Your task to perform on an android device: Open settings Image 0: 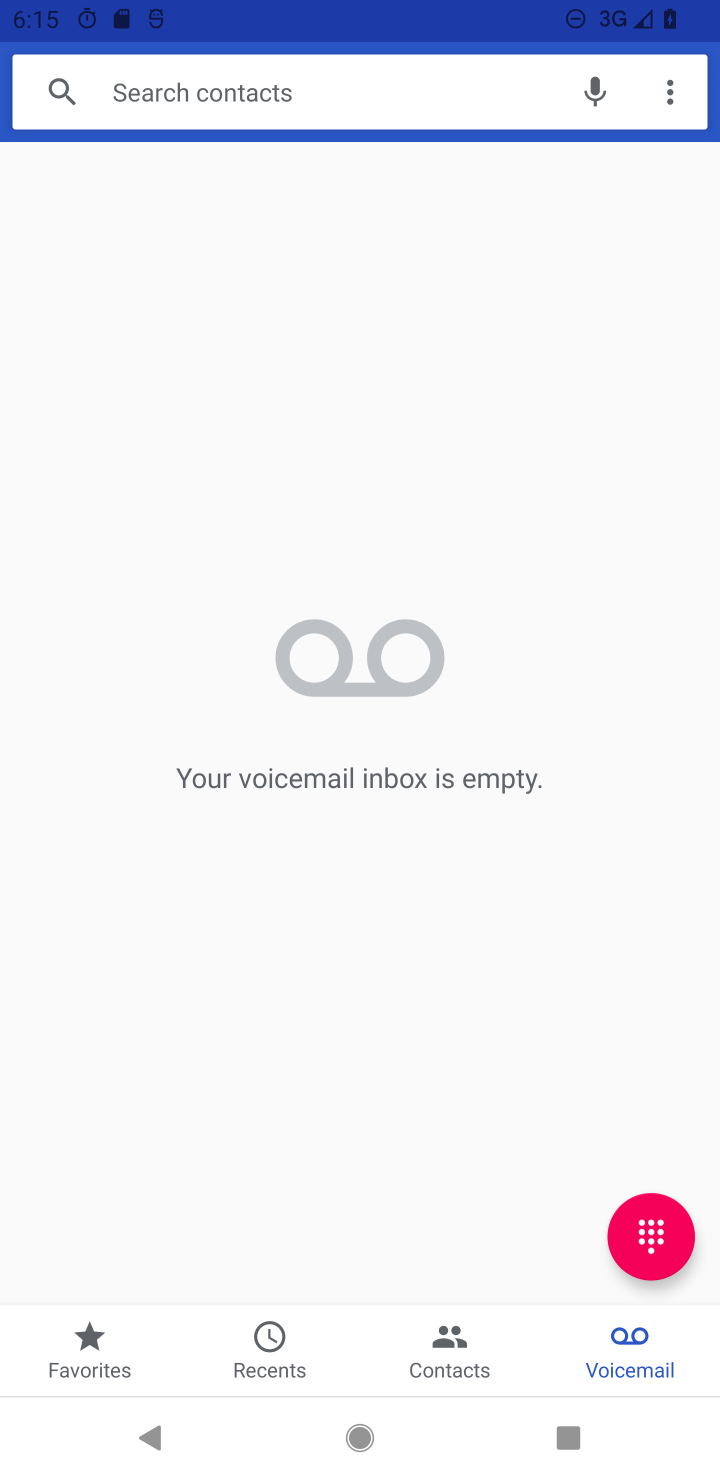
Step 0: click (192, 641)
Your task to perform on an android device: Open settings Image 1: 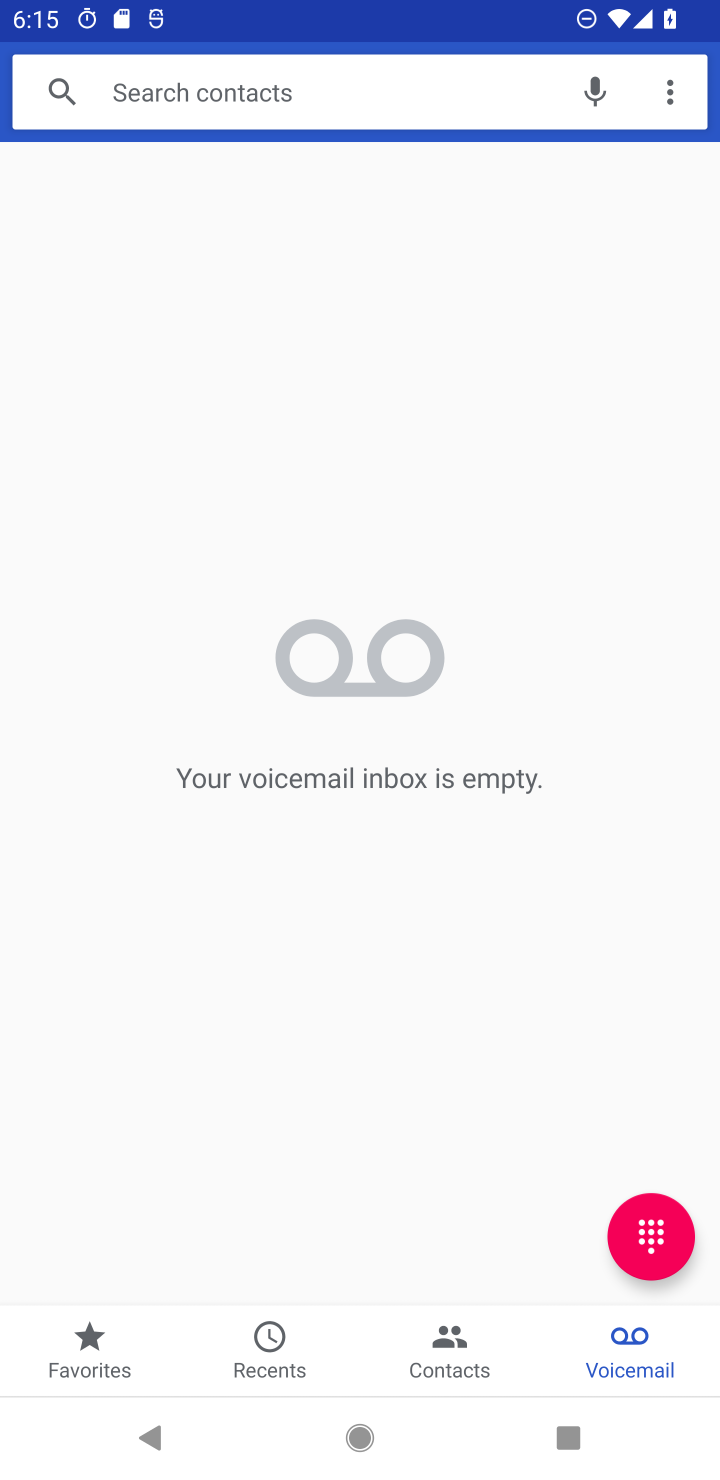
Step 1: press home button
Your task to perform on an android device: Open settings Image 2: 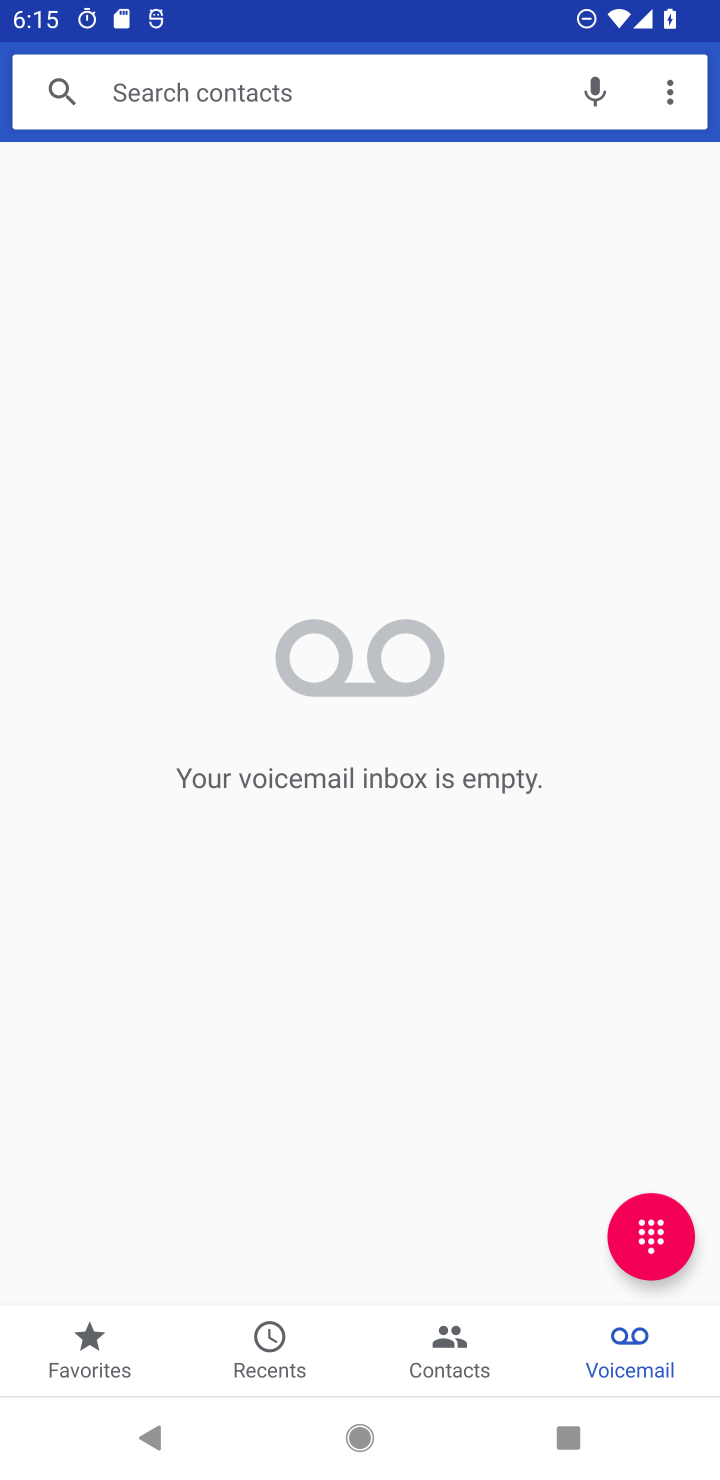
Step 2: click (369, 140)
Your task to perform on an android device: Open settings Image 3: 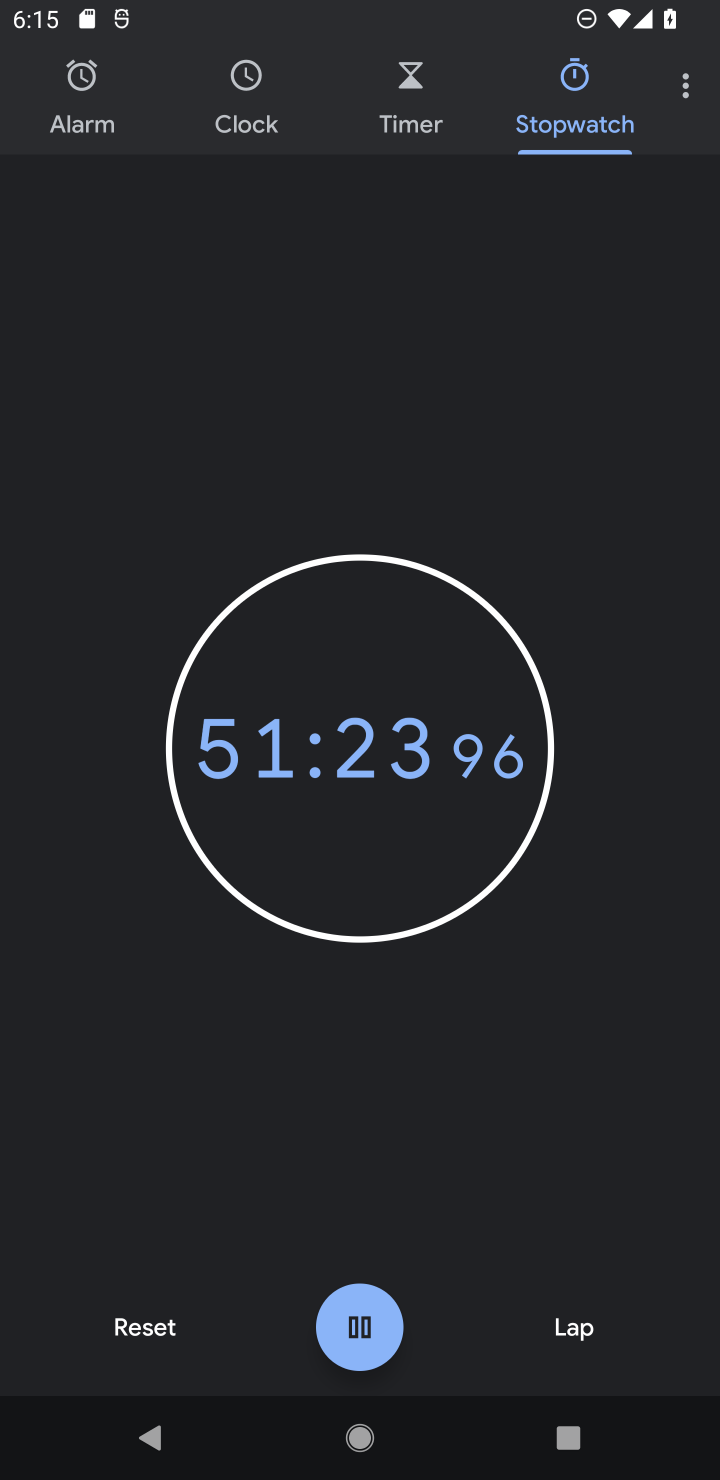
Step 3: press home button
Your task to perform on an android device: Open settings Image 4: 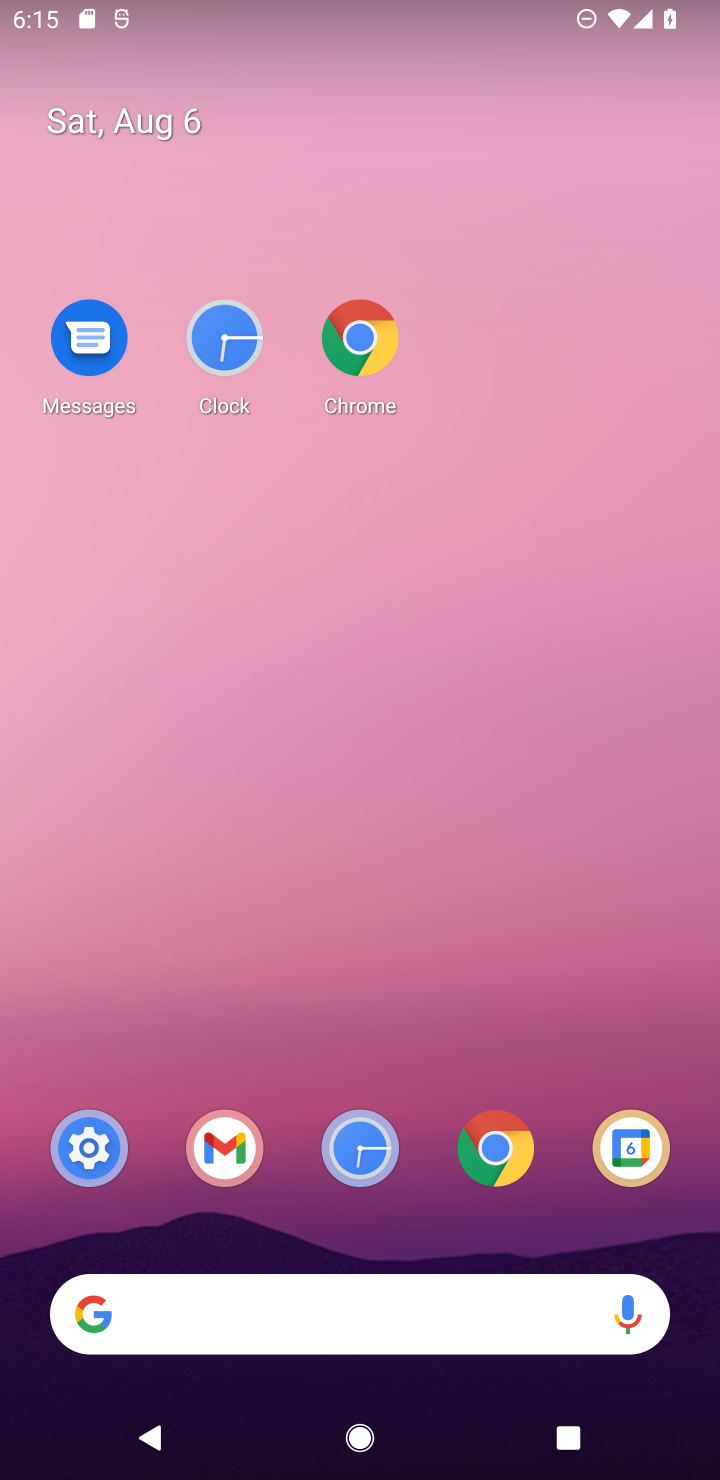
Step 4: drag from (444, 1066) to (547, 234)
Your task to perform on an android device: Open settings Image 5: 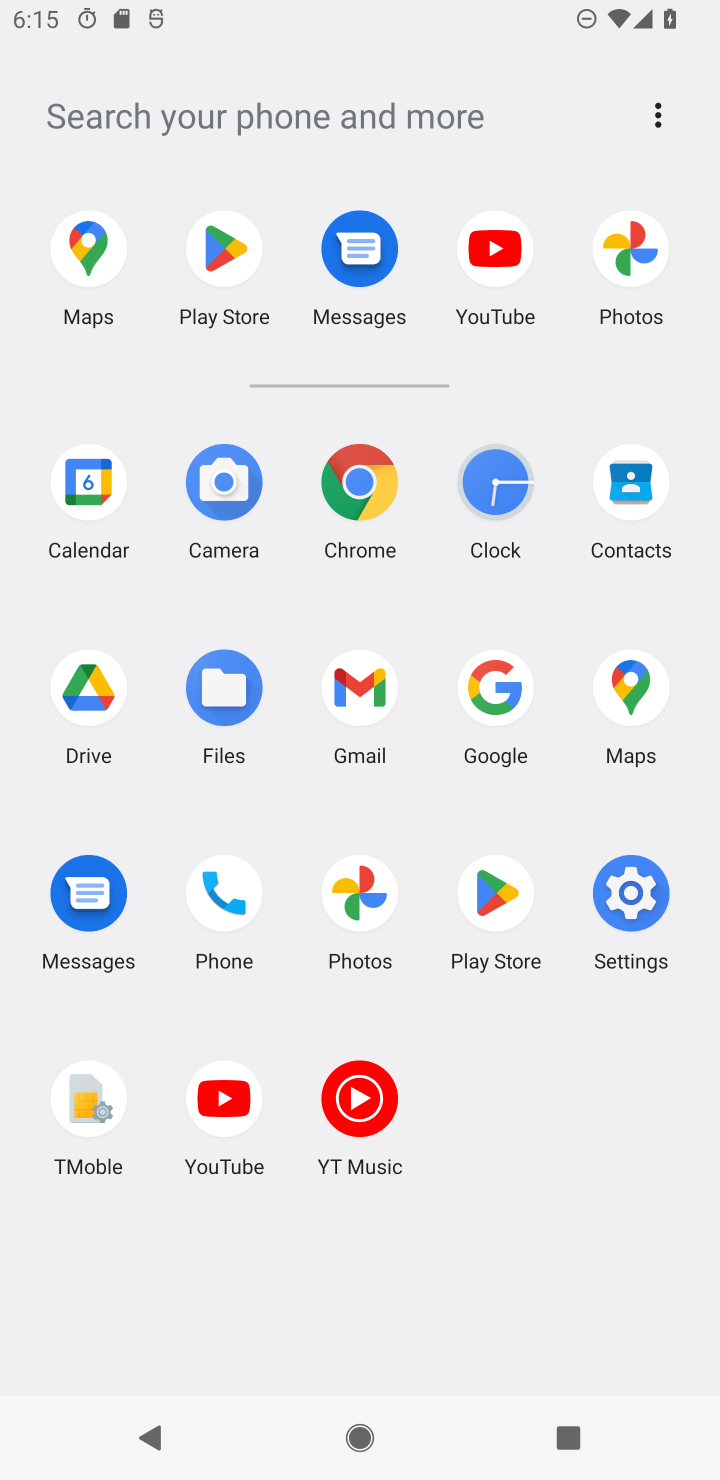
Step 5: click (614, 885)
Your task to perform on an android device: Open settings Image 6: 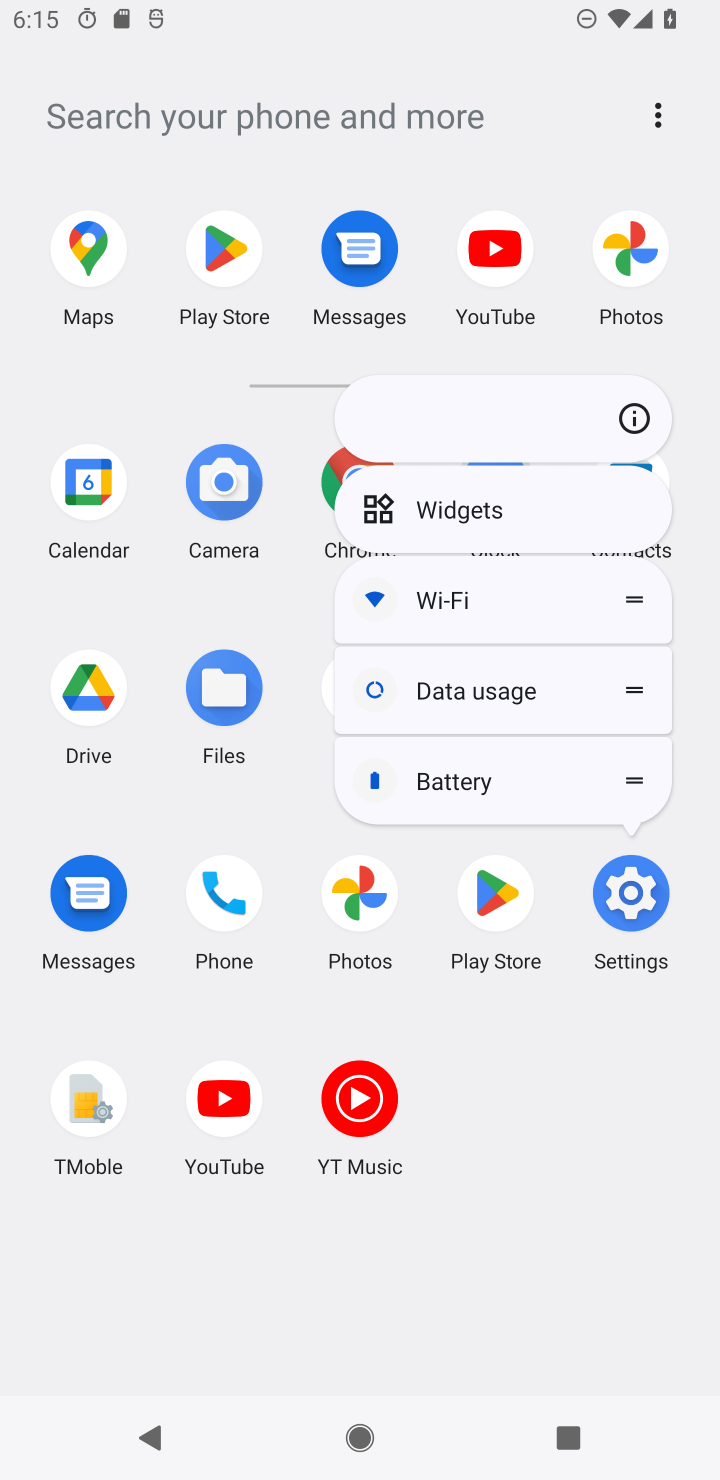
Step 6: click (622, 410)
Your task to perform on an android device: Open settings Image 7: 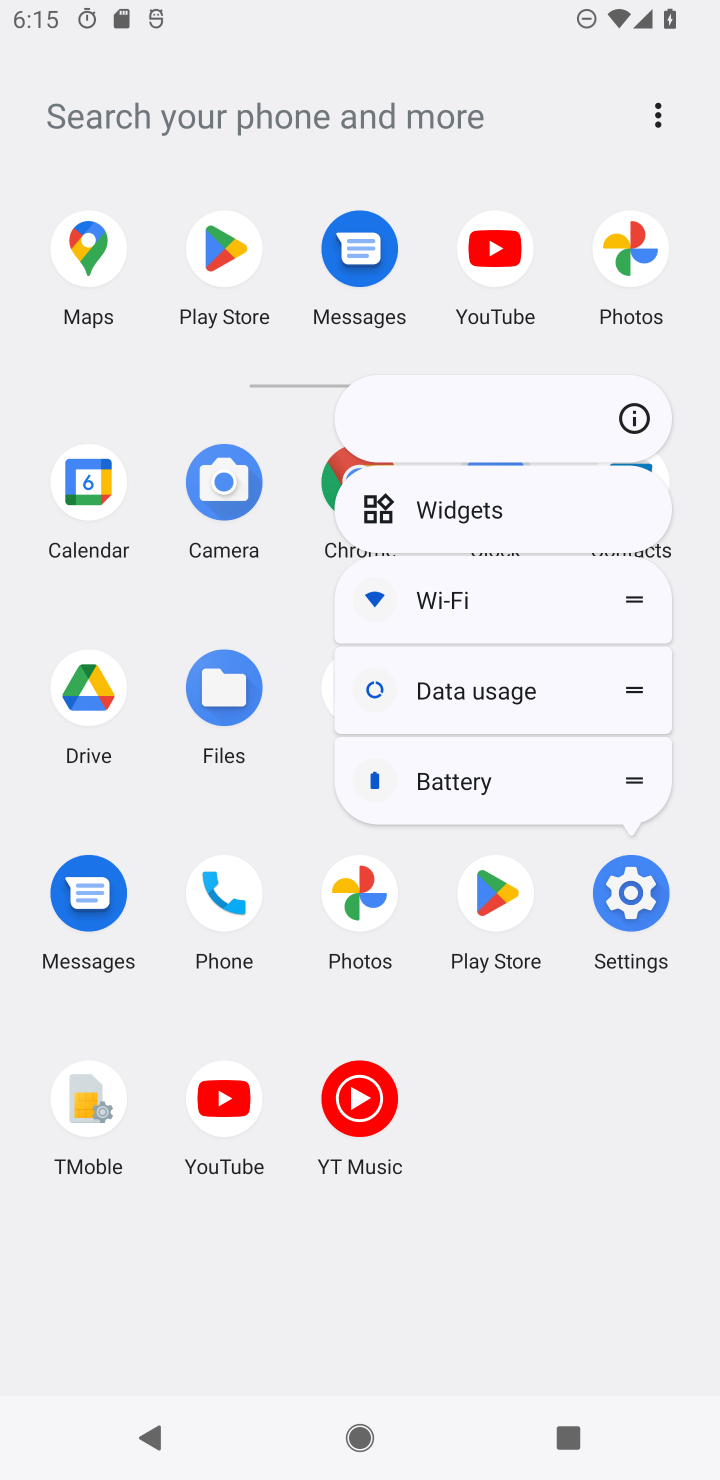
Step 7: click (607, 427)
Your task to perform on an android device: Open settings Image 8: 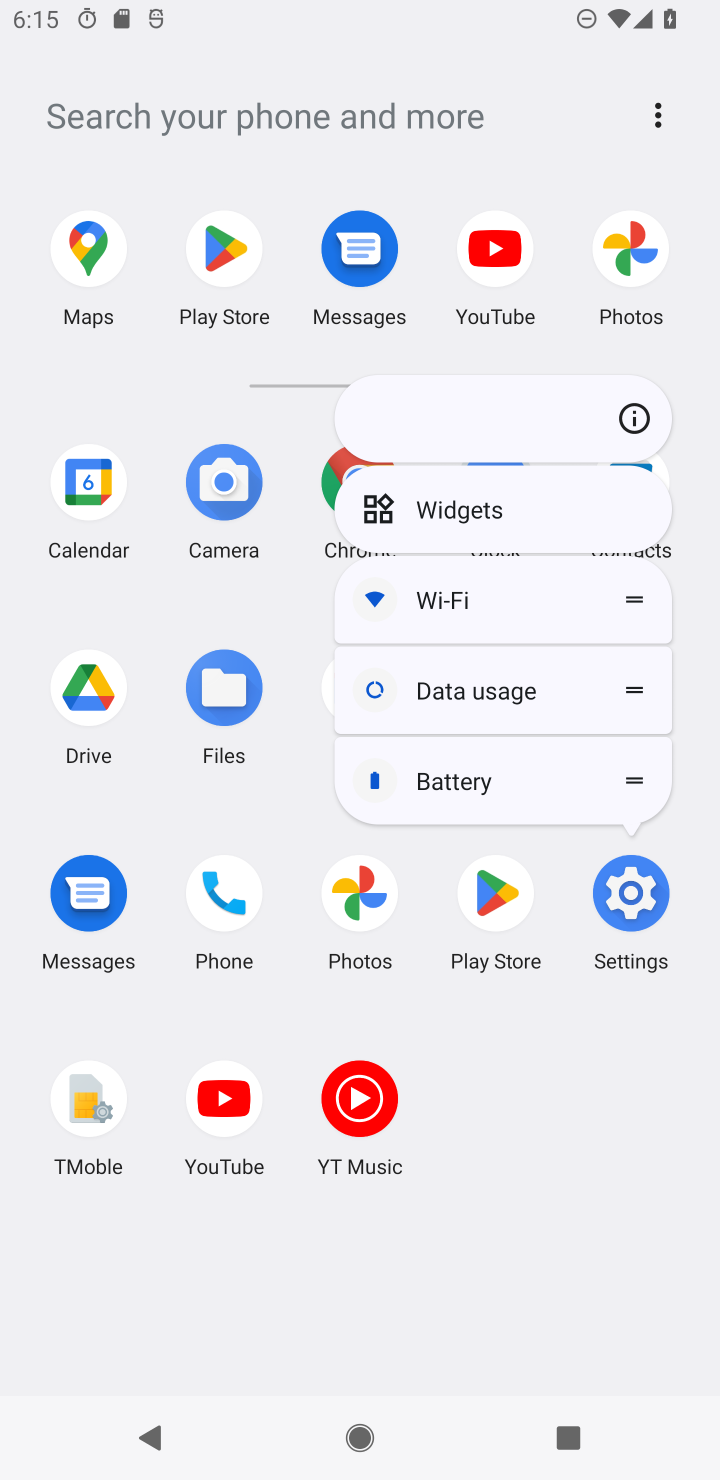
Step 8: click (628, 895)
Your task to perform on an android device: Open settings Image 9: 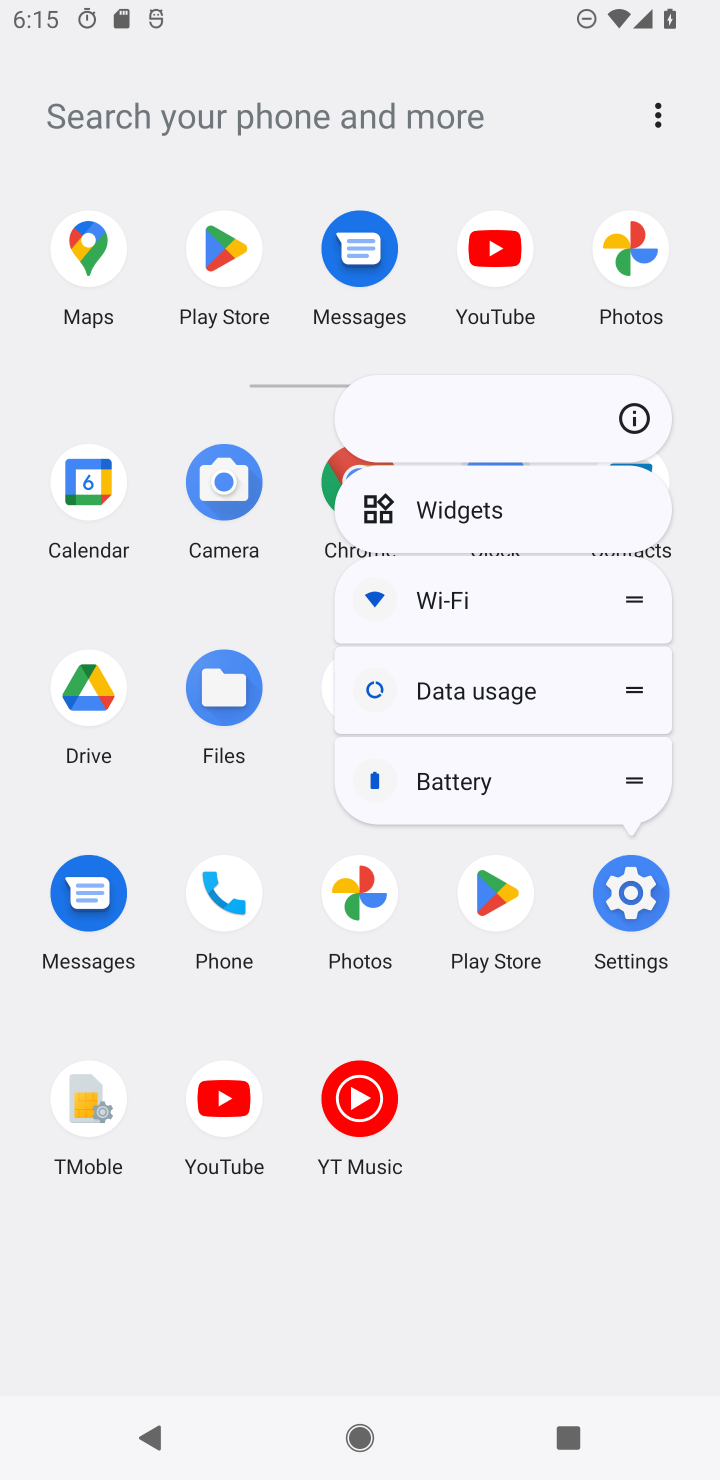
Step 9: click (626, 893)
Your task to perform on an android device: Open settings Image 10: 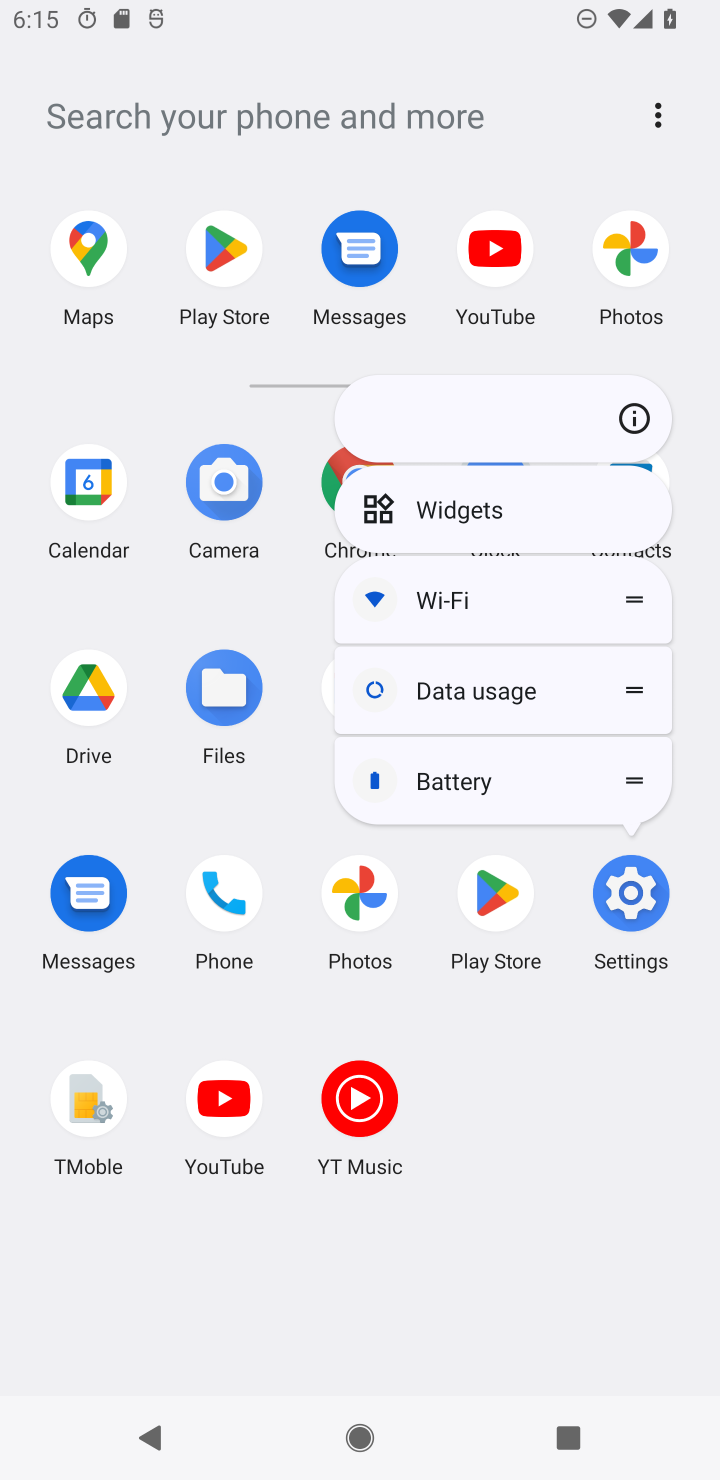
Step 10: click (626, 893)
Your task to perform on an android device: Open settings Image 11: 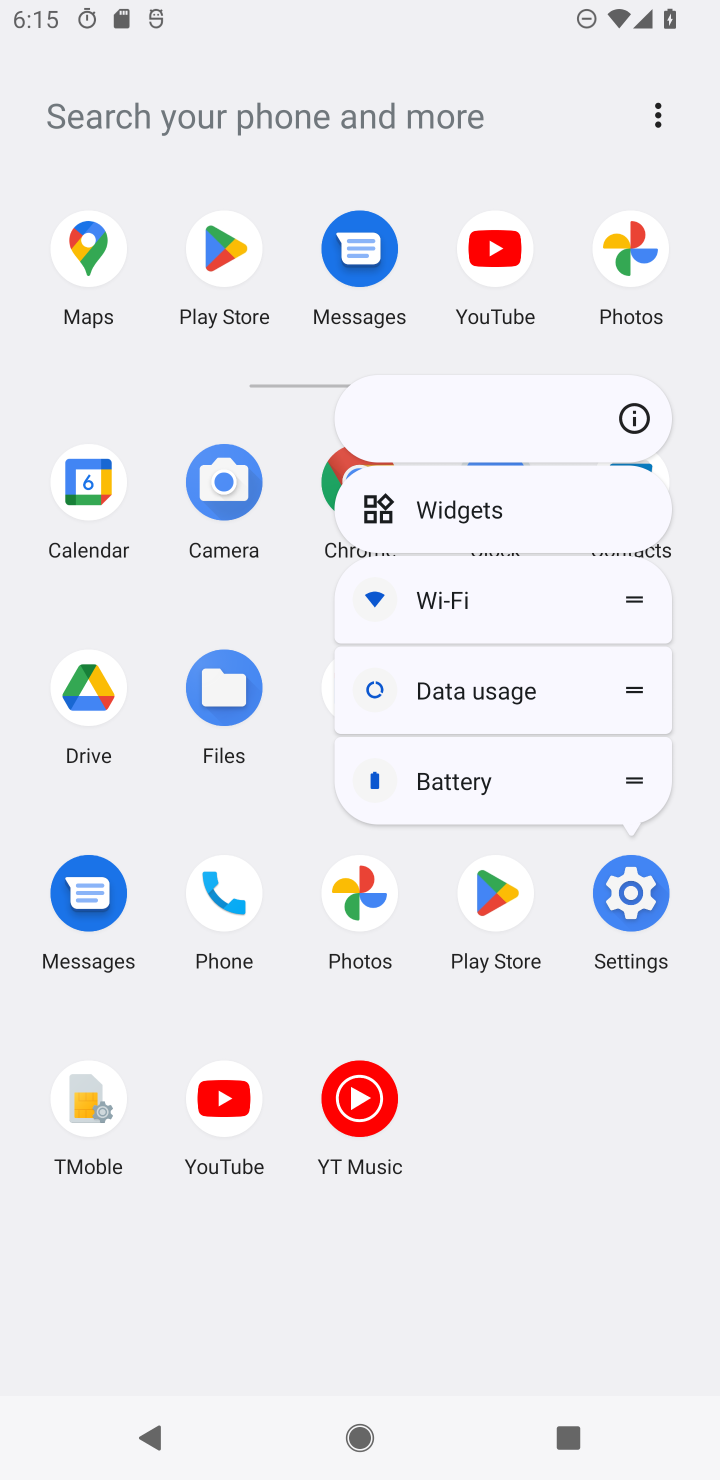
Step 11: click (616, 877)
Your task to perform on an android device: Open settings Image 12: 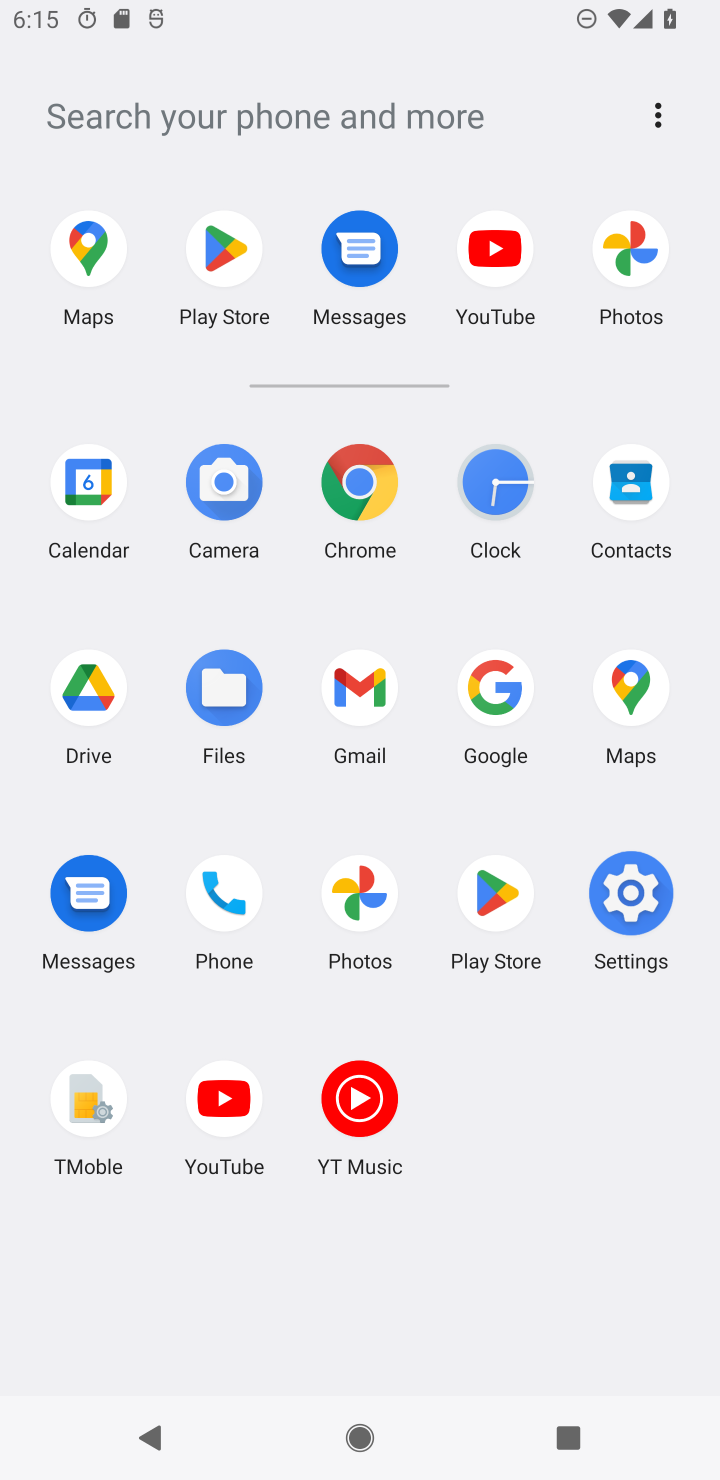
Step 12: click (614, 875)
Your task to perform on an android device: Open settings Image 13: 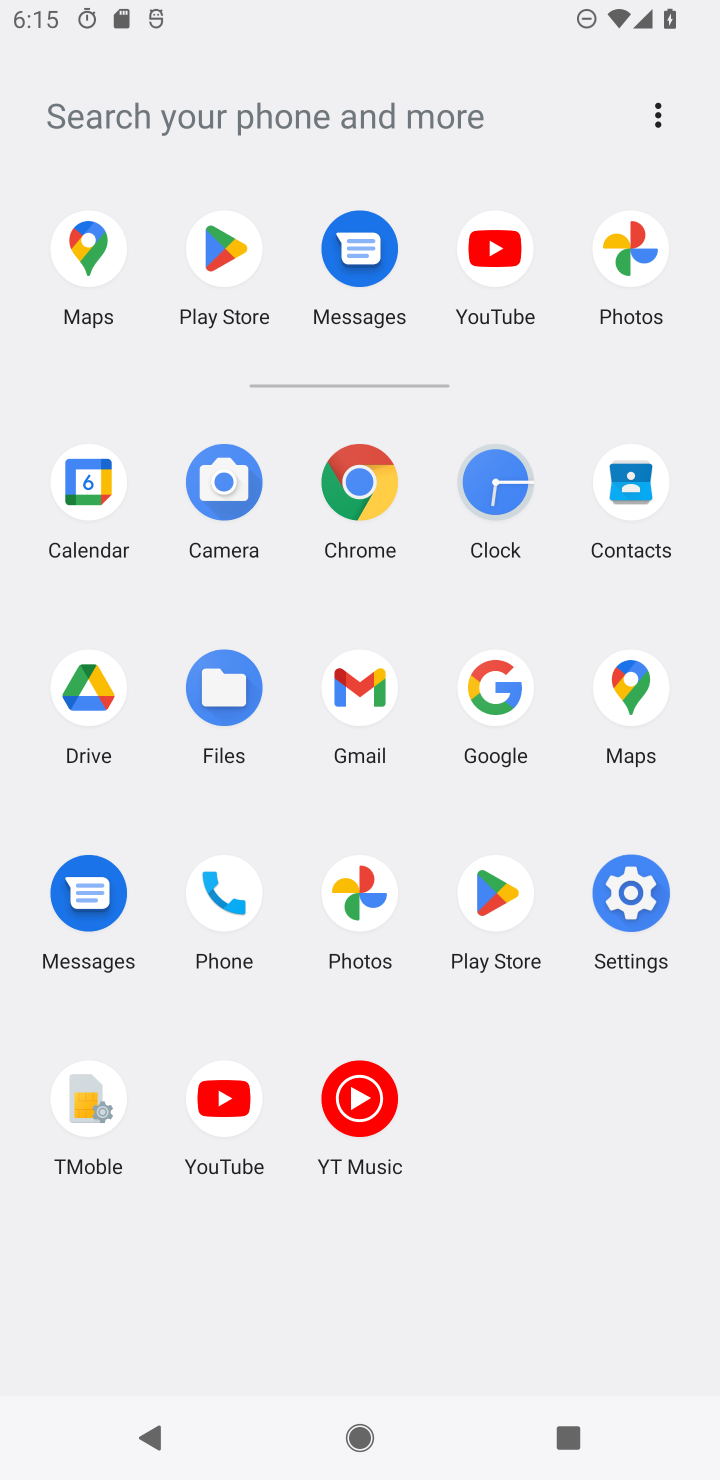
Step 13: click (614, 875)
Your task to perform on an android device: Open settings Image 14: 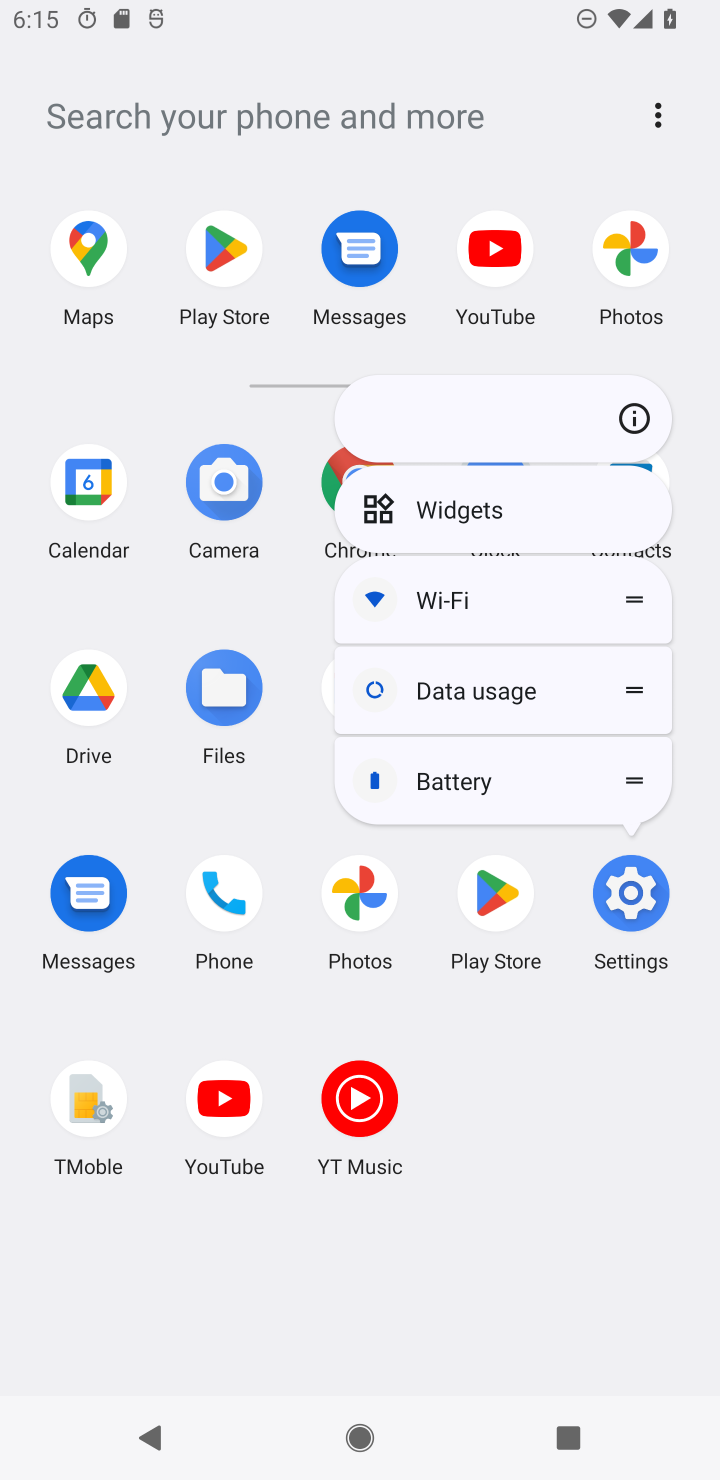
Step 14: click (631, 901)
Your task to perform on an android device: Open settings Image 15: 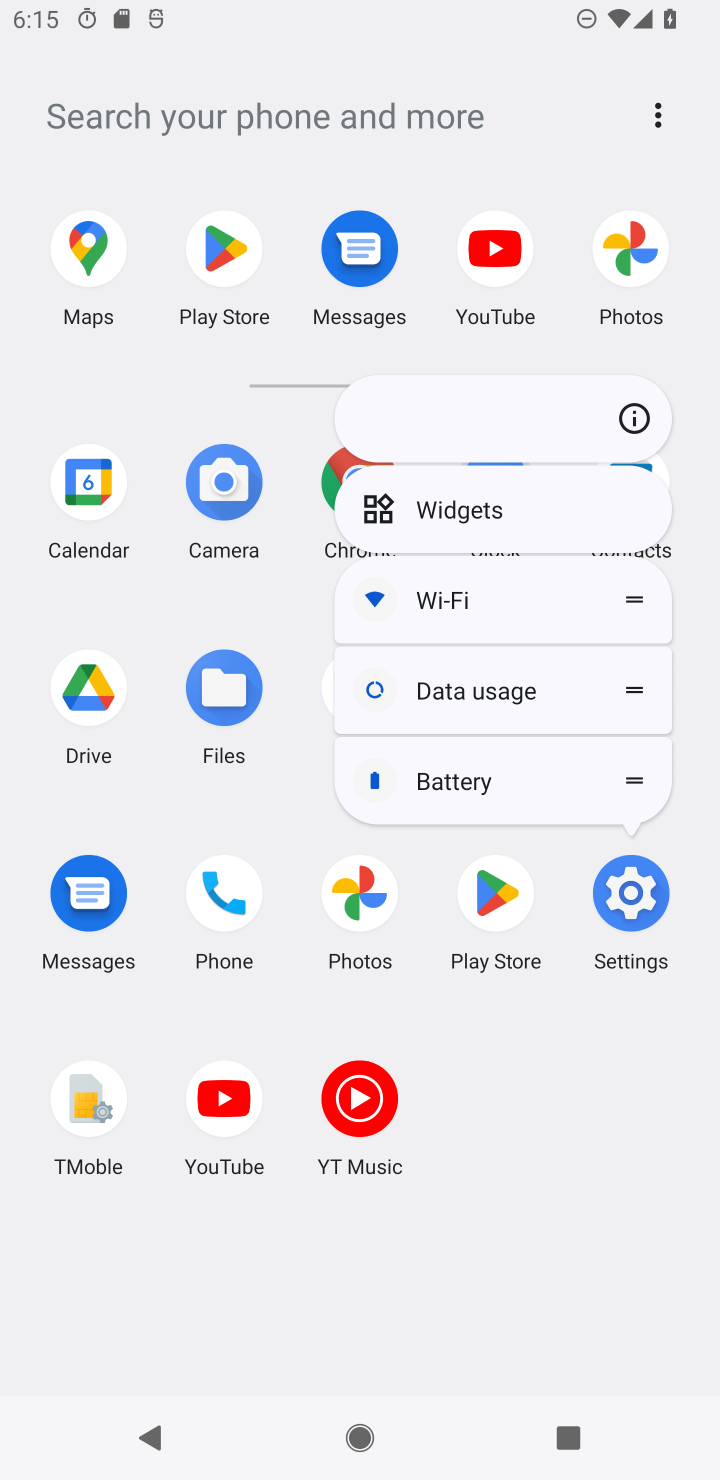
Step 15: click (633, 895)
Your task to perform on an android device: Open settings Image 16: 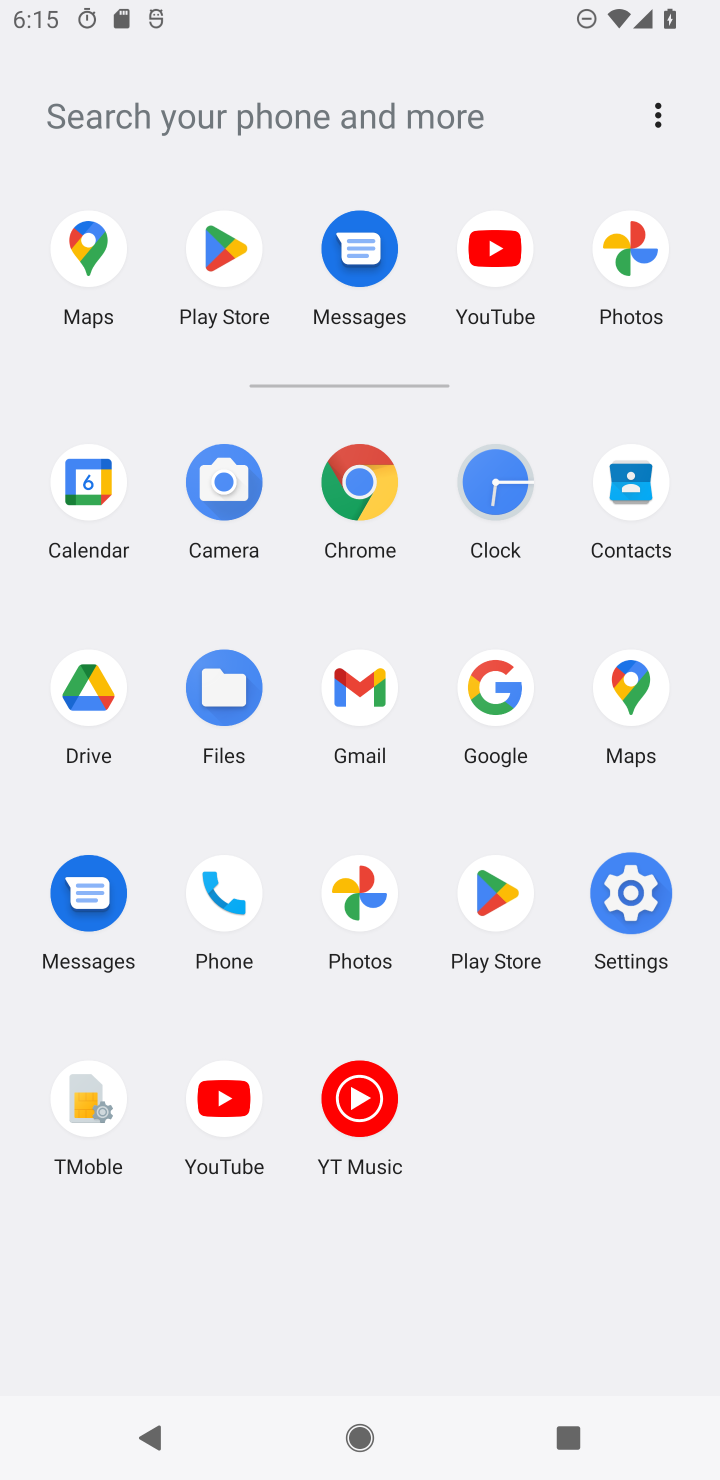
Step 16: click (610, 879)
Your task to perform on an android device: Open settings Image 17: 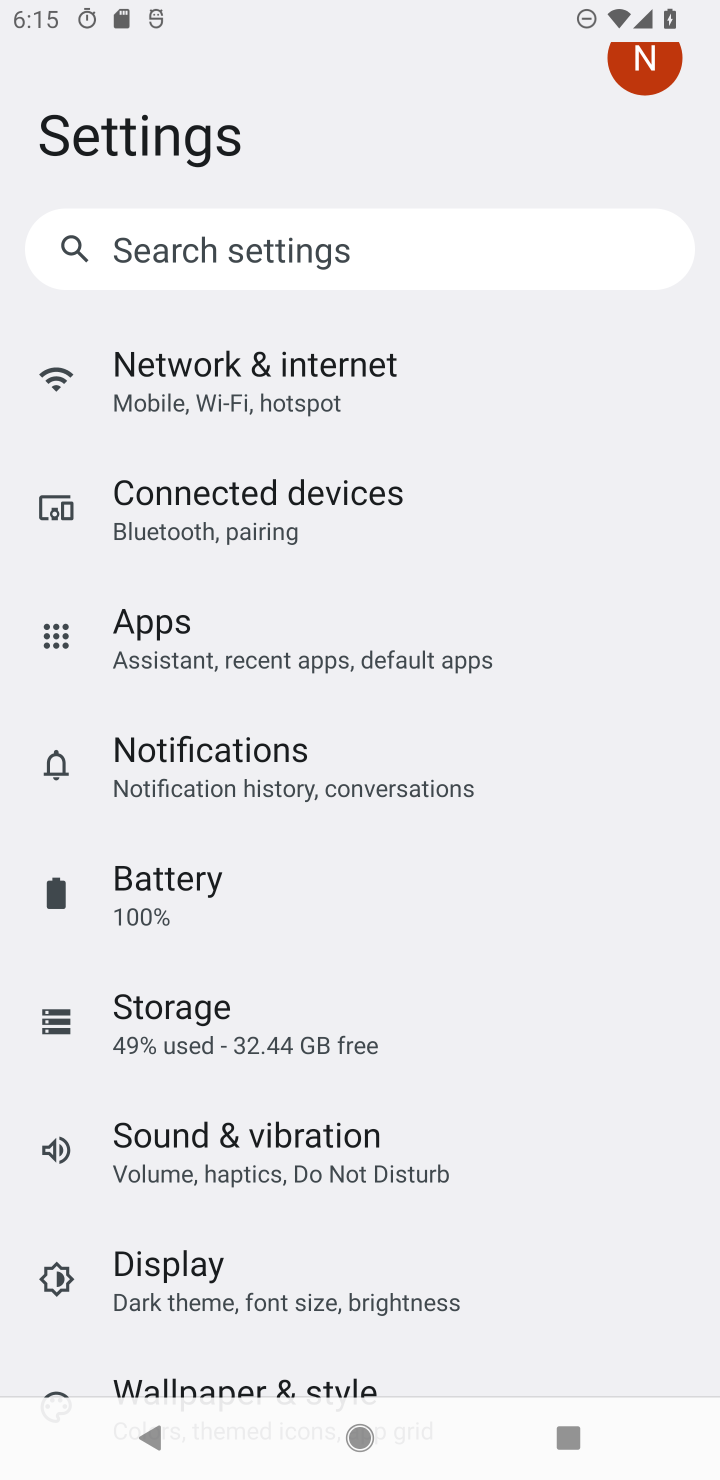
Step 17: task complete